Your task to perform on an android device: turn off location Image 0: 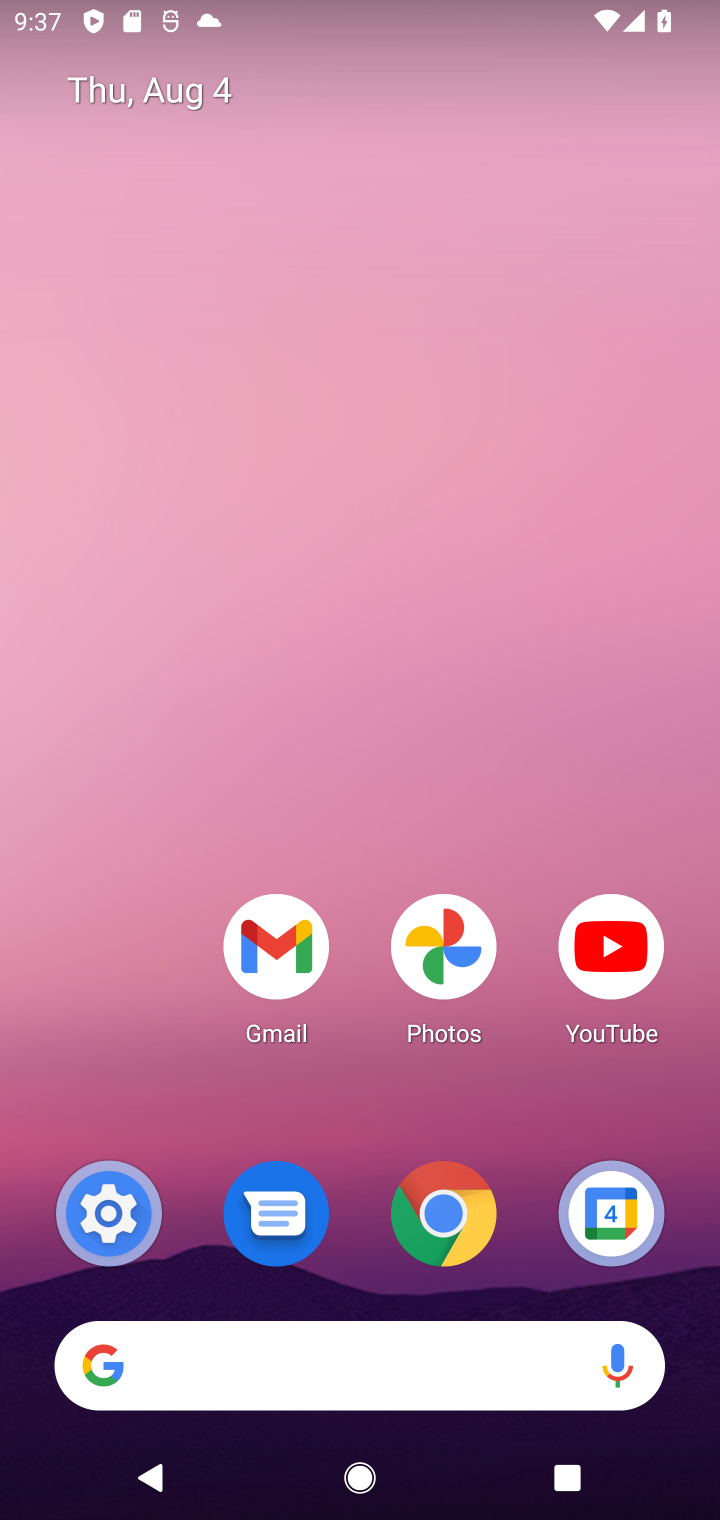
Step 0: press home button
Your task to perform on an android device: turn off location Image 1: 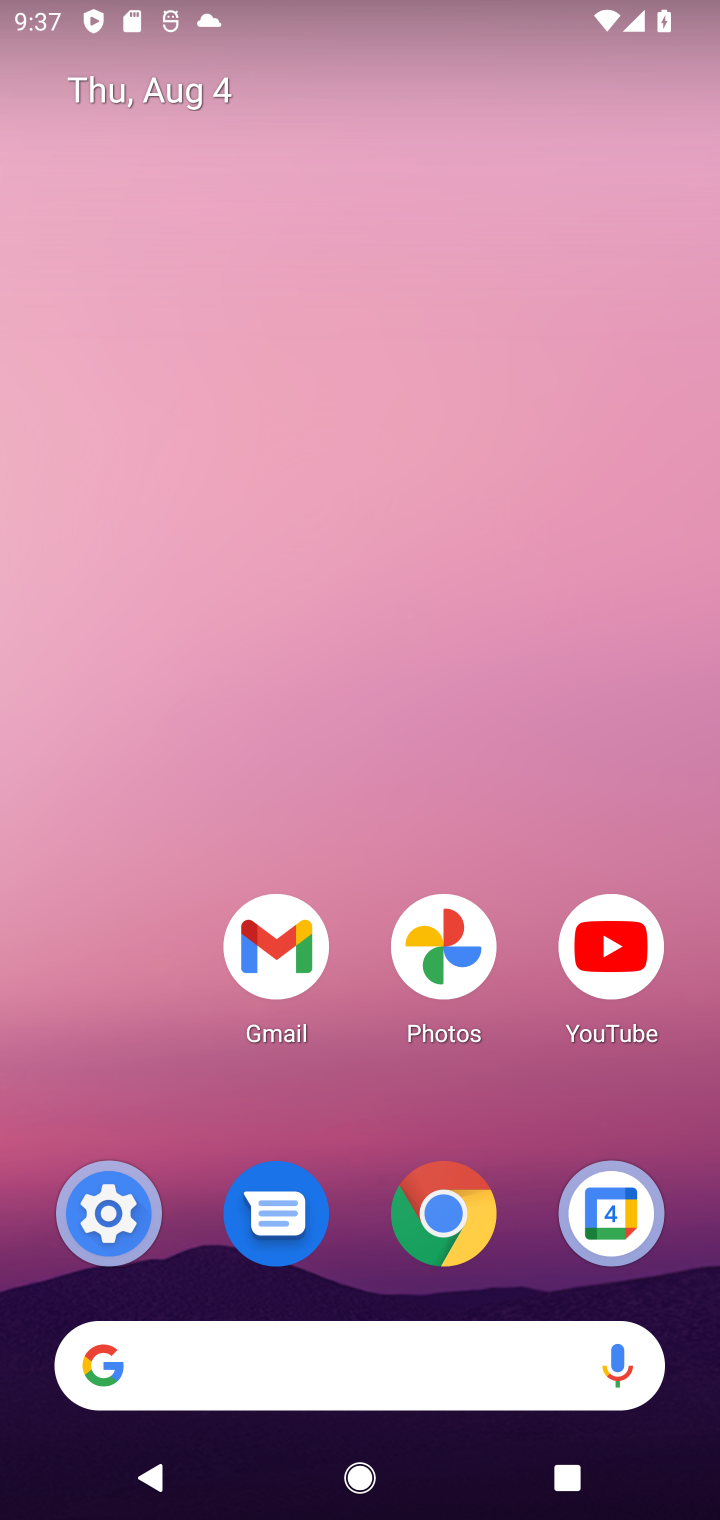
Step 1: drag from (359, 1129) to (369, 83)
Your task to perform on an android device: turn off location Image 2: 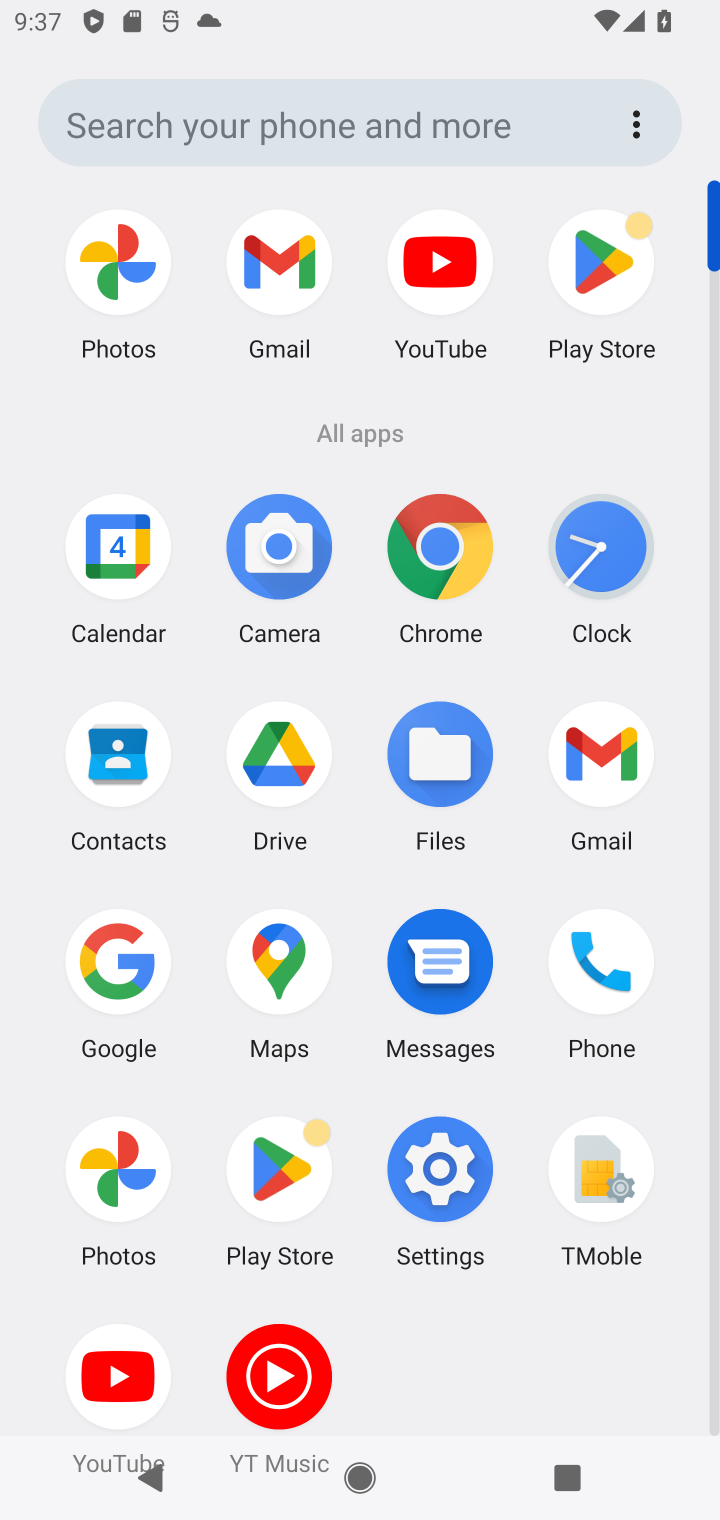
Step 2: click (437, 1157)
Your task to perform on an android device: turn off location Image 3: 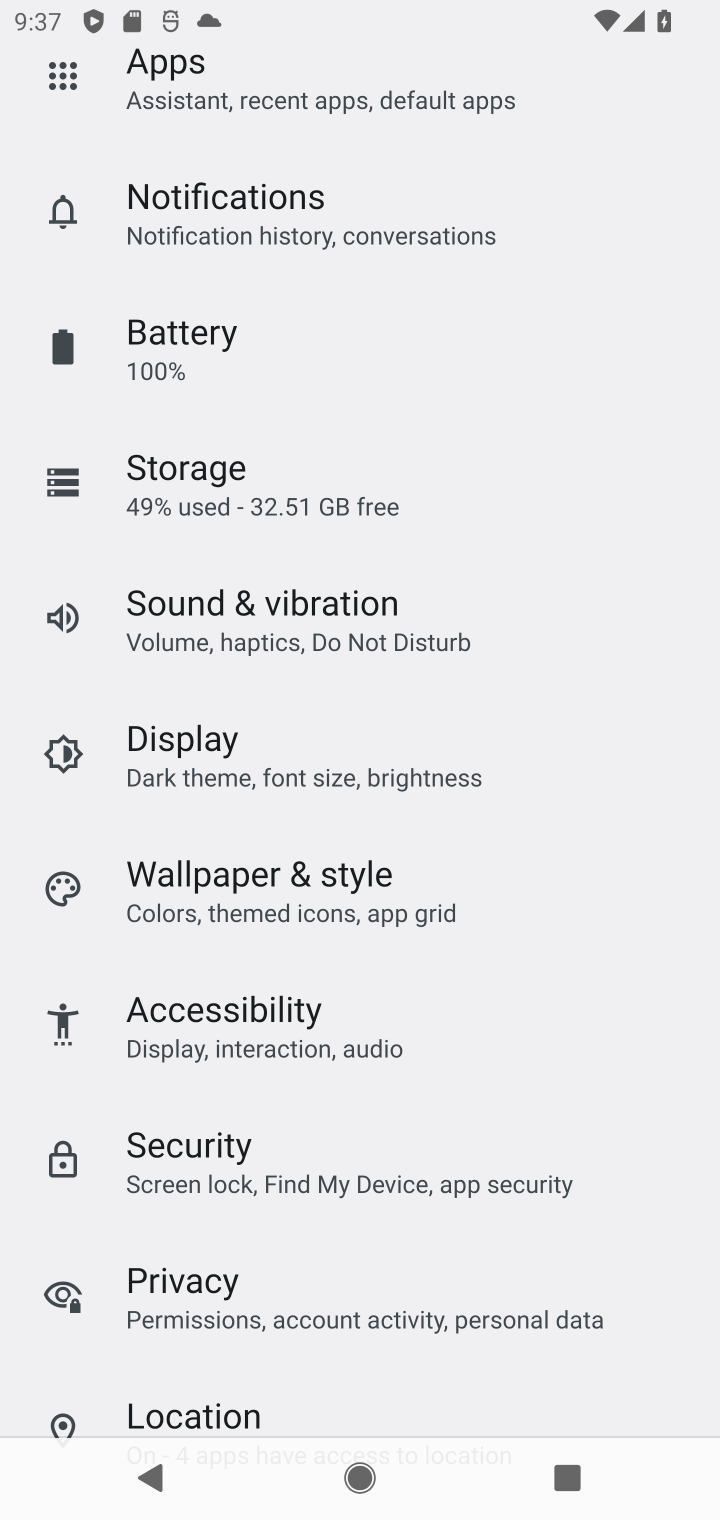
Step 3: click (258, 1400)
Your task to perform on an android device: turn off location Image 4: 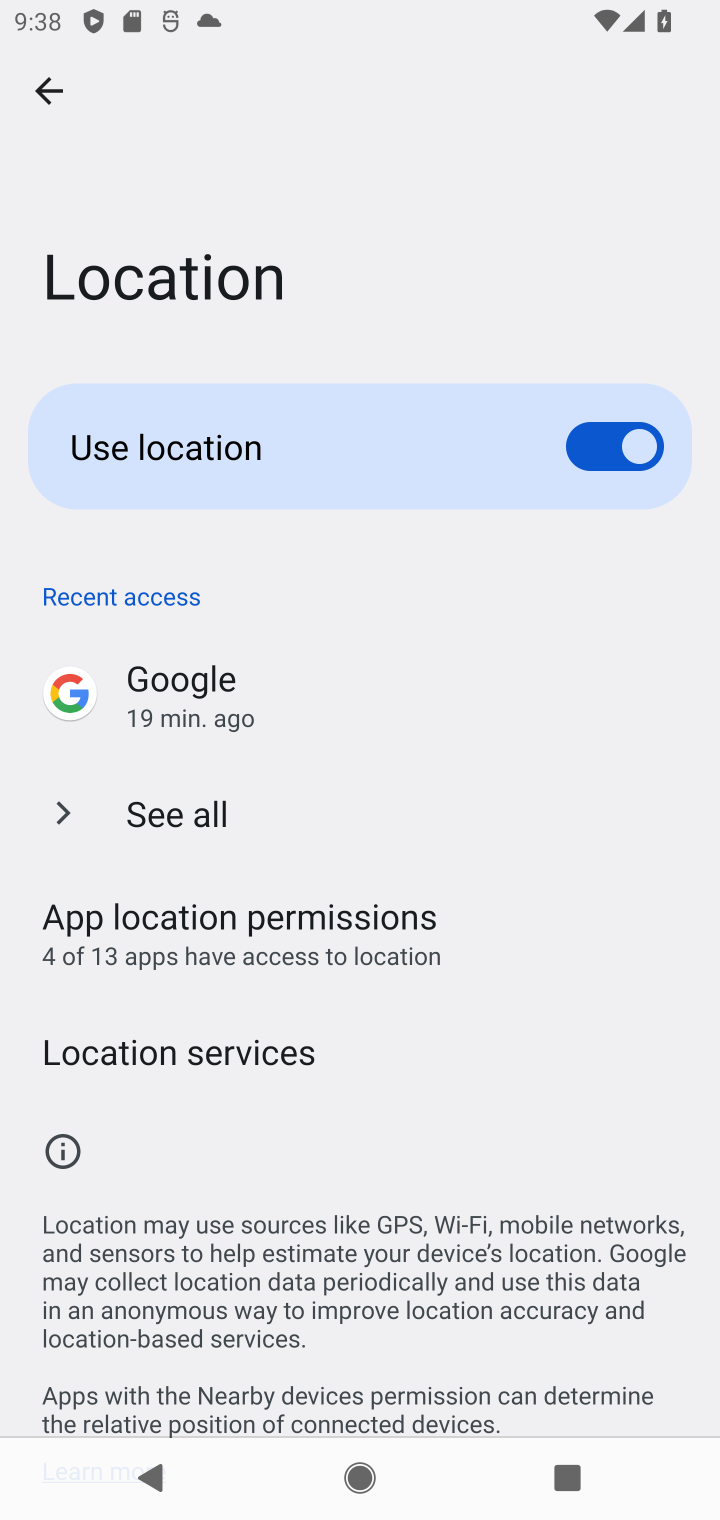
Step 4: click (596, 437)
Your task to perform on an android device: turn off location Image 5: 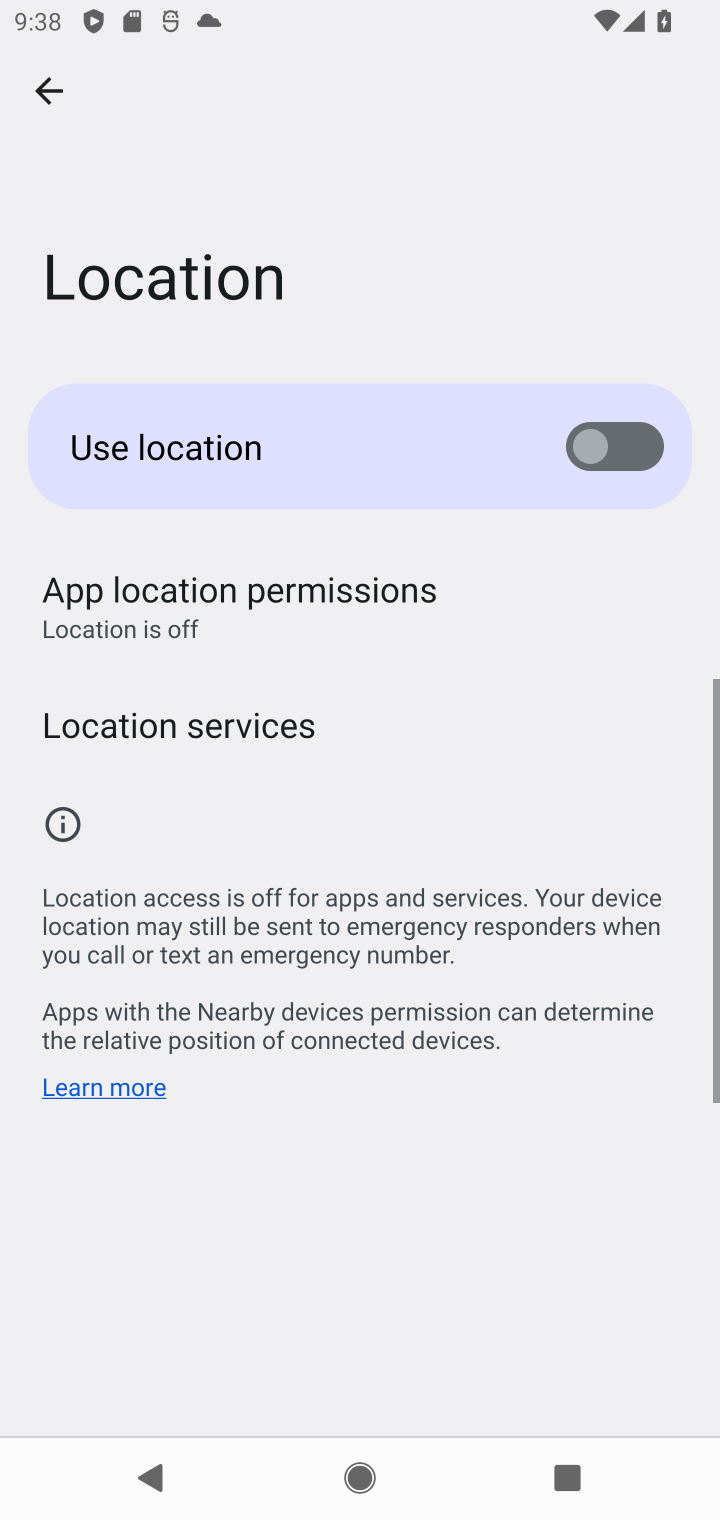
Step 5: task complete